Your task to perform on an android device: Search for lg ultragear on bestbuy.com, select the first entry, and add it to the cart. Image 0: 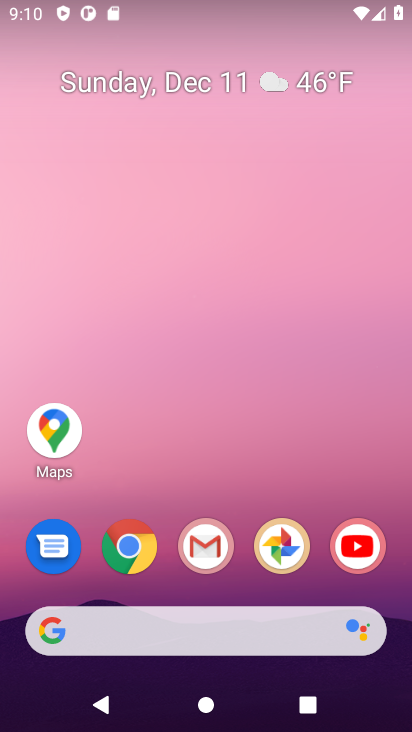
Step 0: click (125, 552)
Your task to perform on an android device: Search for lg ultragear on bestbuy.com, select the first entry, and add it to the cart. Image 1: 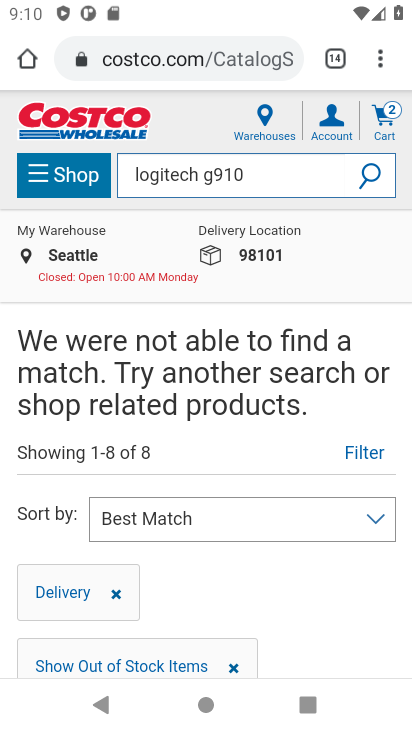
Step 1: click (152, 63)
Your task to perform on an android device: Search for lg ultragear on bestbuy.com, select the first entry, and add it to the cart. Image 2: 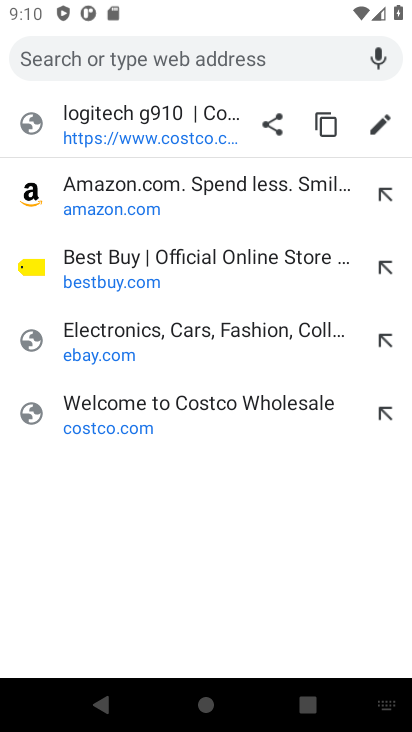
Step 2: click (110, 267)
Your task to perform on an android device: Search for lg ultragear on bestbuy.com, select the first entry, and add it to the cart. Image 3: 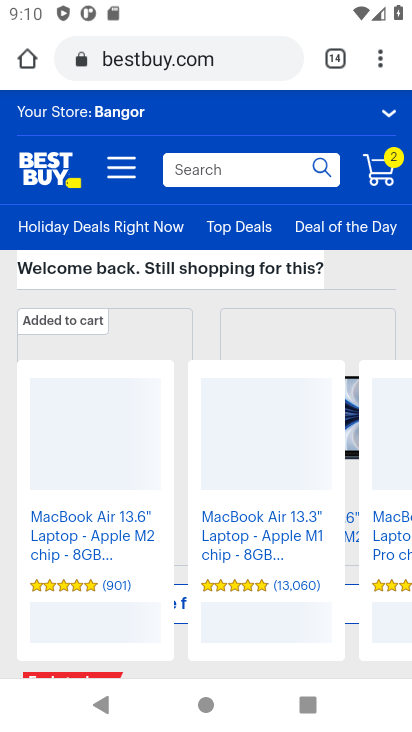
Step 3: click (271, 166)
Your task to perform on an android device: Search for lg ultragear on bestbuy.com, select the first entry, and add it to the cart. Image 4: 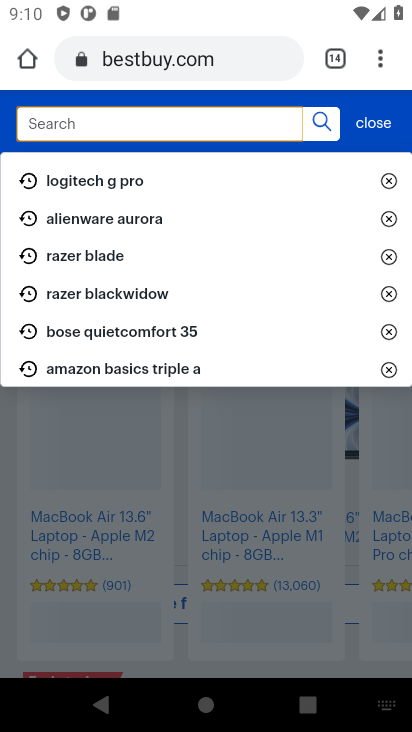
Step 4: type "lg ultragear"
Your task to perform on an android device: Search for lg ultragear on bestbuy.com, select the first entry, and add it to the cart. Image 5: 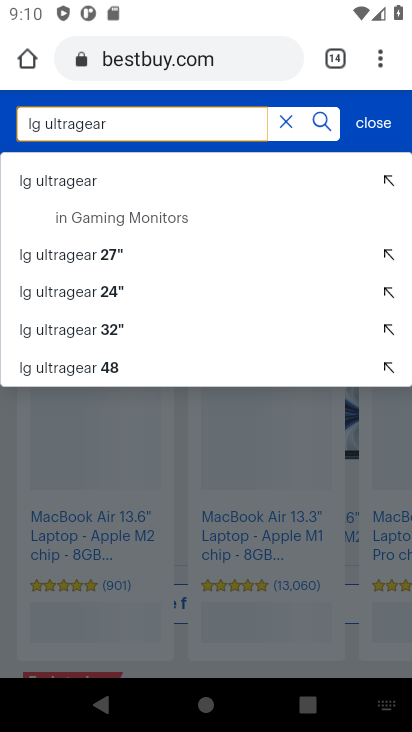
Step 5: click (84, 185)
Your task to perform on an android device: Search for lg ultragear on bestbuy.com, select the first entry, and add it to the cart. Image 6: 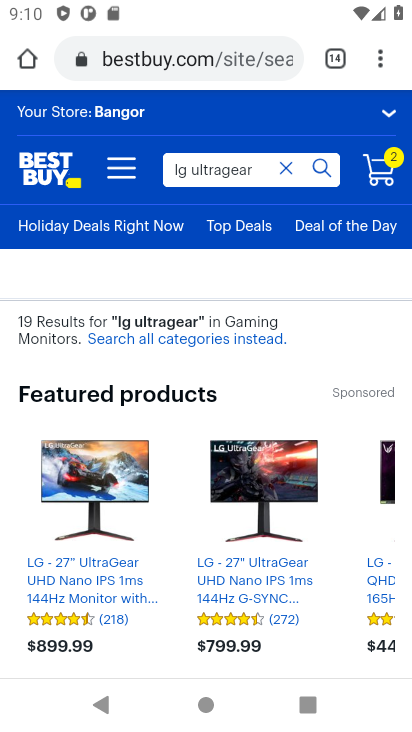
Step 6: drag from (204, 503) to (198, 113)
Your task to perform on an android device: Search for lg ultragear on bestbuy.com, select the first entry, and add it to the cart. Image 7: 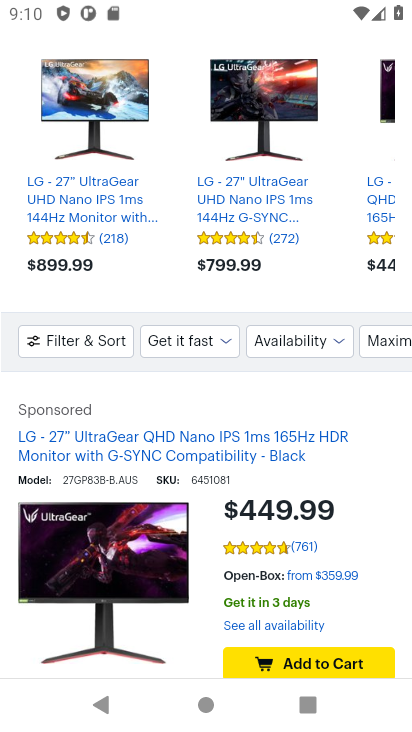
Step 7: drag from (275, 577) to (269, 415)
Your task to perform on an android device: Search for lg ultragear on bestbuy.com, select the first entry, and add it to the cart. Image 8: 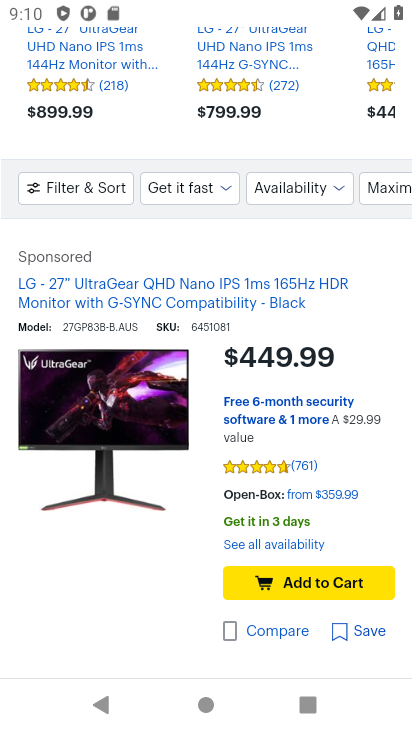
Step 8: click (300, 579)
Your task to perform on an android device: Search for lg ultragear on bestbuy.com, select the first entry, and add it to the cart. Image 9: 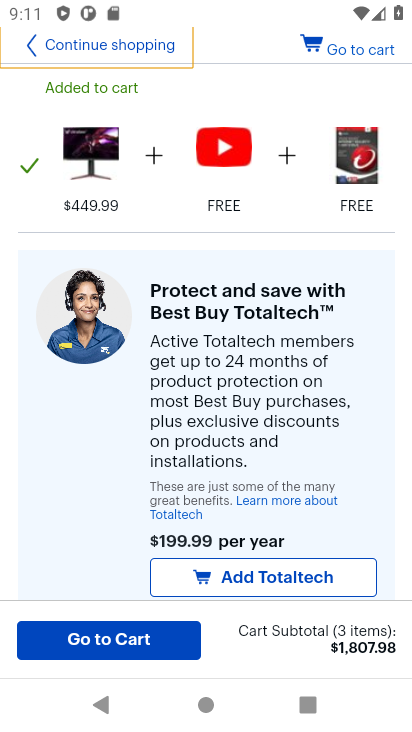
Step 9: task complete